Your task to perform on an android device: star an email in the gmail app Image 0: 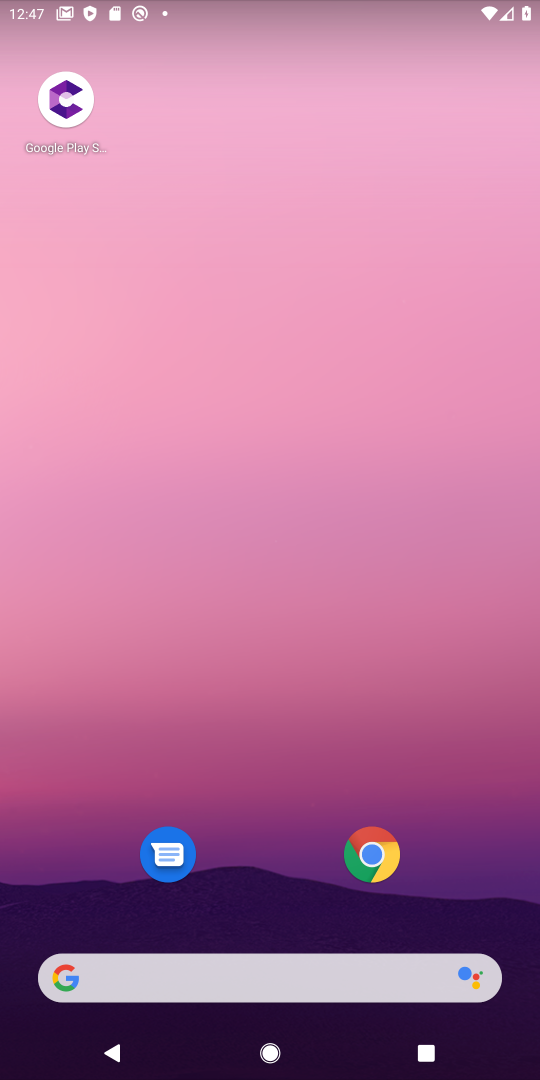
Step 0: drag from (294, 765) to (253, 47)
Your task to perform on an android device: star an email in the gmail app Image 1: 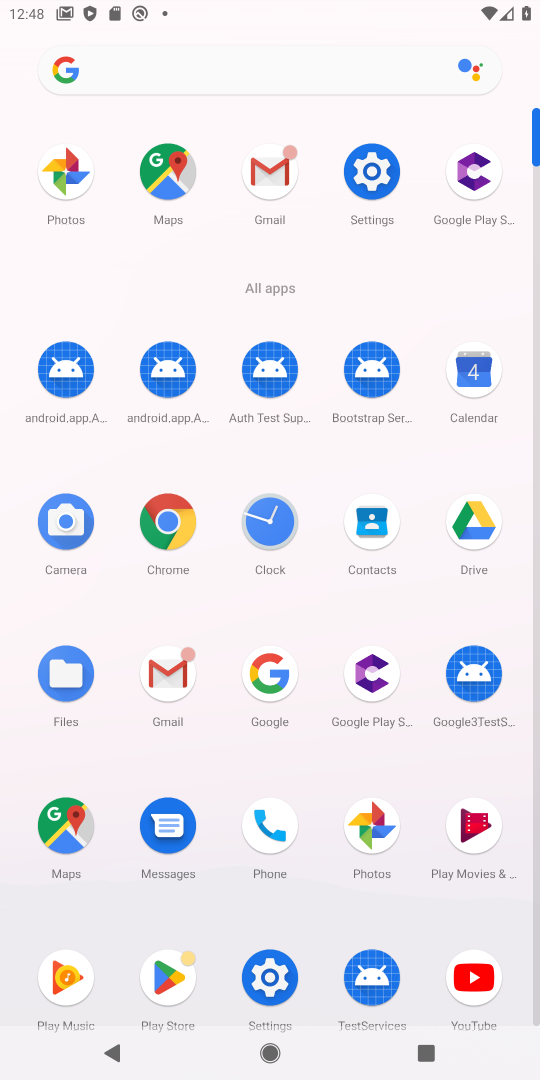
Step 1: click (269, 192)
Your task to perform on an android device: star an email in the gmail app Image 2: 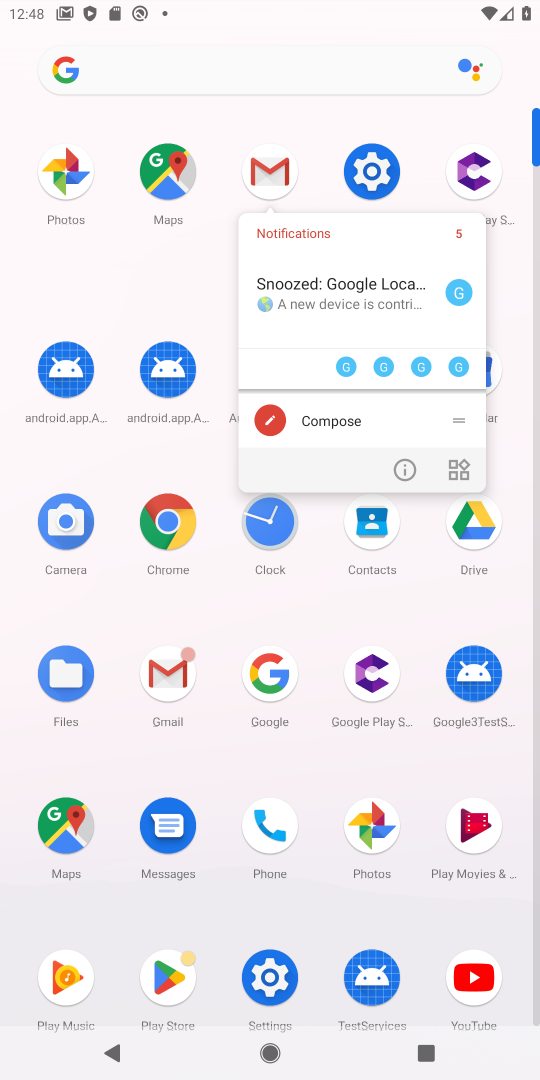
Step 2: click (269, 192)
Your task to perform on an android device: star an email in the gmail app Image 3: 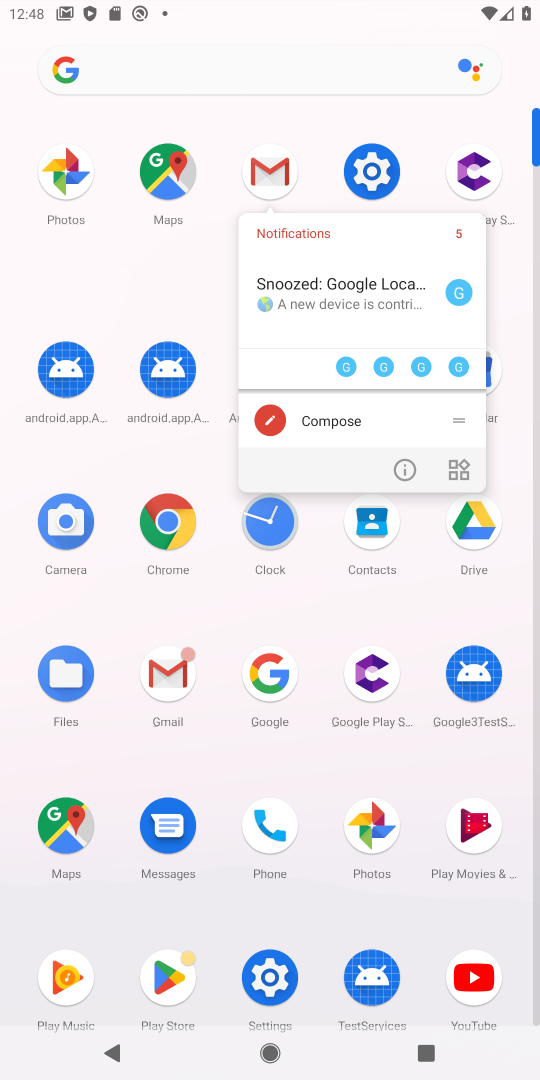
Step 3: click (183, 657)
Your task to perform on an android device: star an email in the gmail app Image 4: 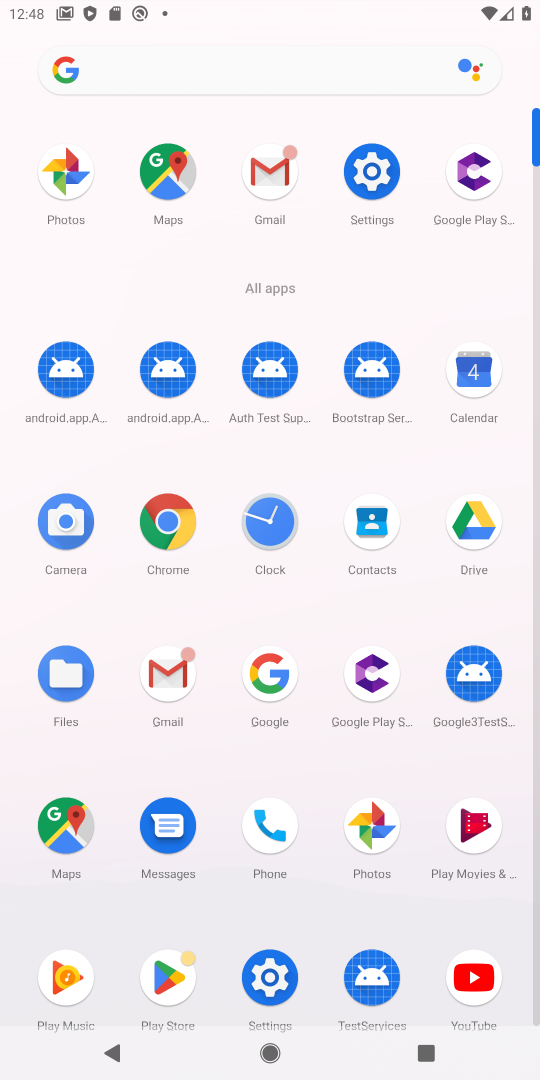
Step 4: click (172, 670)
Your task to perform on an android device: star an email in the gmail app Image 5: 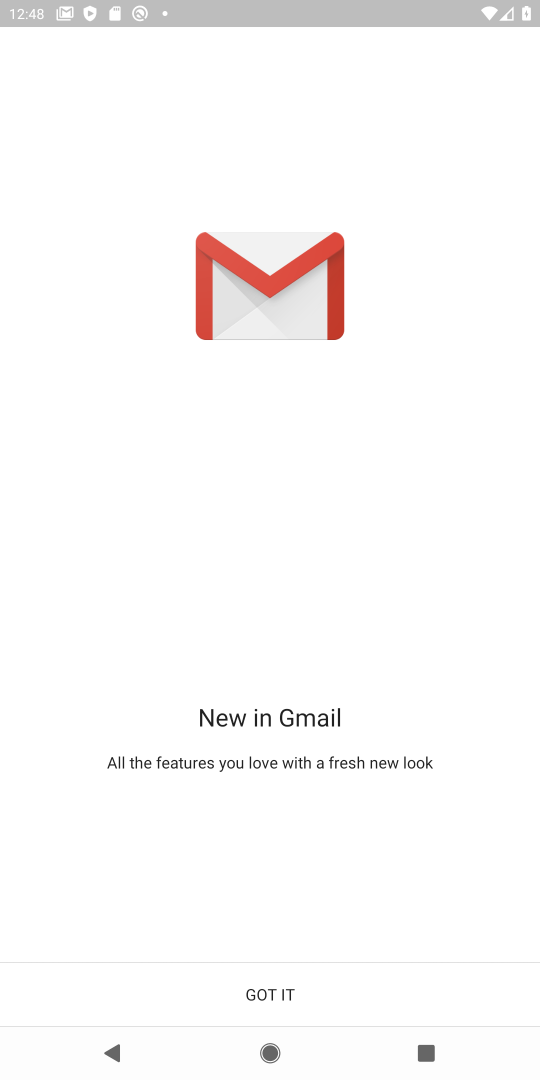
Step 5: click (264, 995)
Your task to perform on an android device: star an email in the gmail app Image 6: 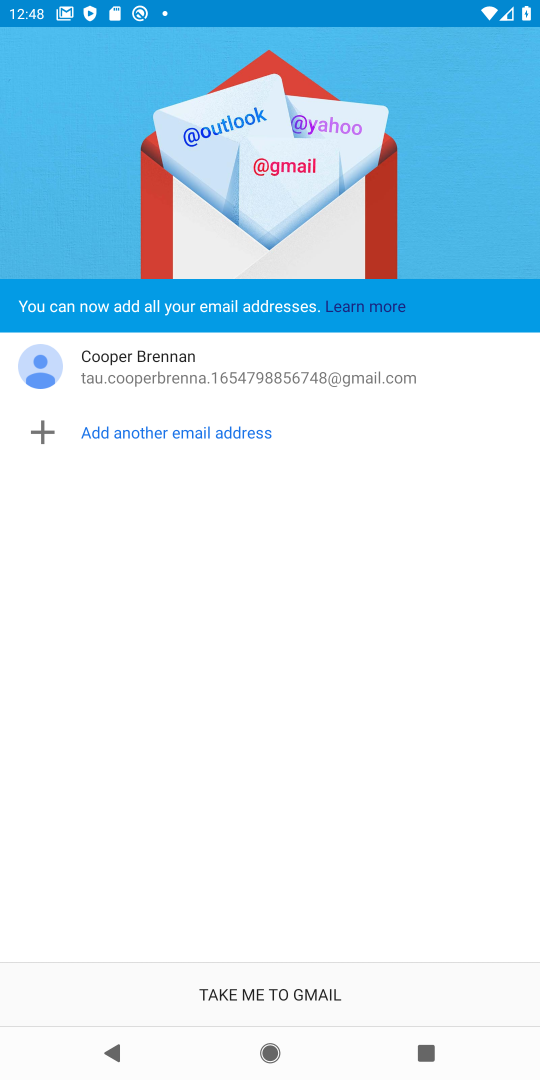
Step 6: click (264, 995)
Your task to perform on an android device: star an email in the gmail app Image 7: 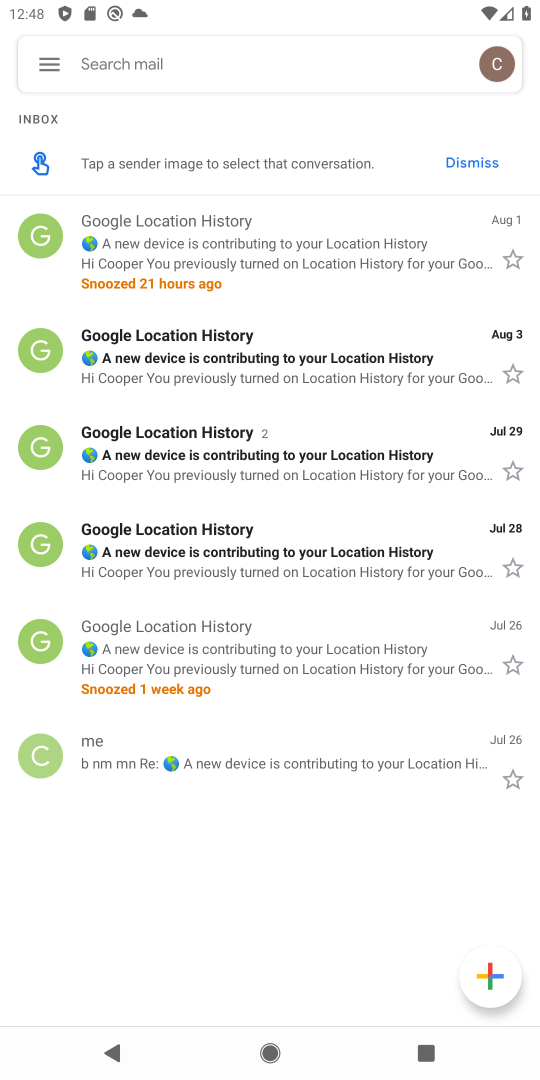
Step 7: task complete